Your task to perform on an android device: Open Chrome and go to the settings page Image 0: 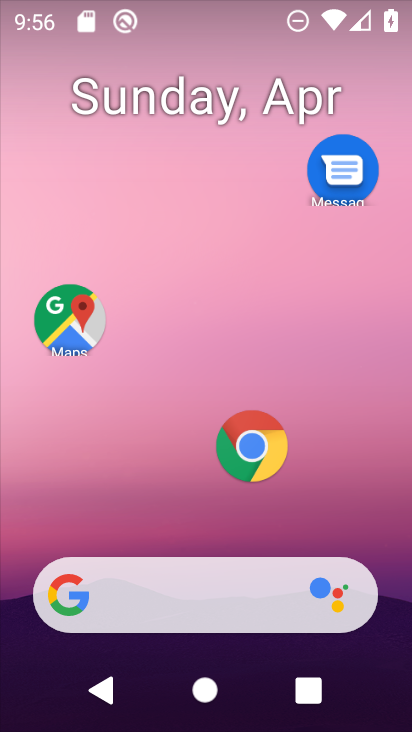
Step 0: drag from (234, 333) to (236, 279)
Your task to perform on an android device: Open Chrome and go to the settings page Image 1: 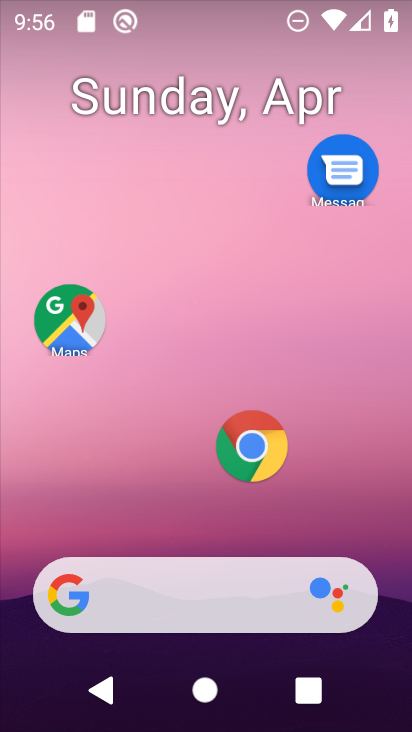
Step 1: drag from (185, 498) to (207, 128)
Your task to perform on an android device: Open Chrome and go to the settings page Image 2: 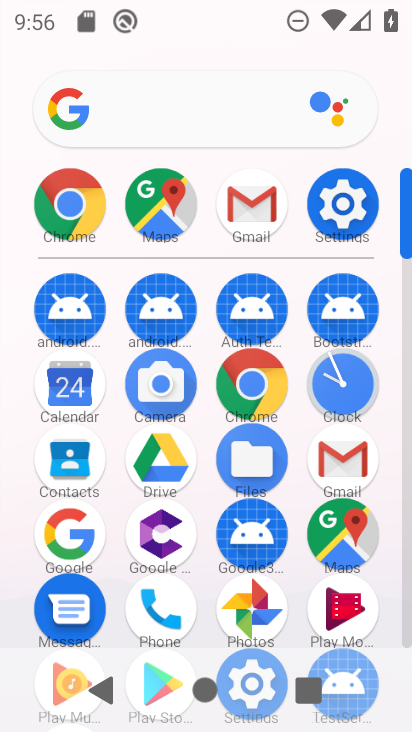
Step 2: drag from (206, 611) to (224, 96)
Your task to perform on an android device: Open Chrome and go to the settings page Image 3: 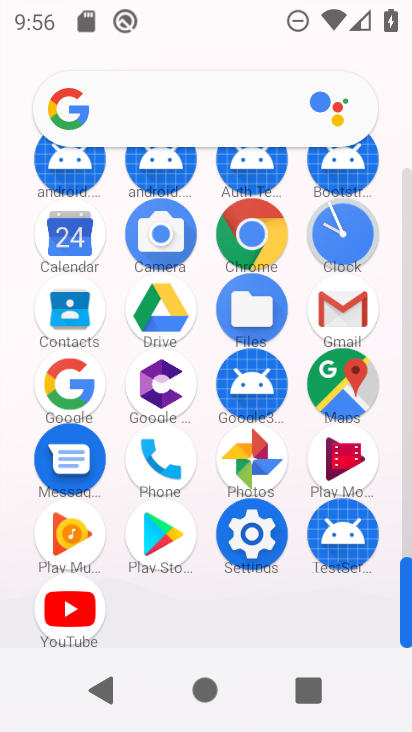
Step 3: click (247, 231)
Your task to perform on an android device: Open Chrome and go to the settings page Image 4: 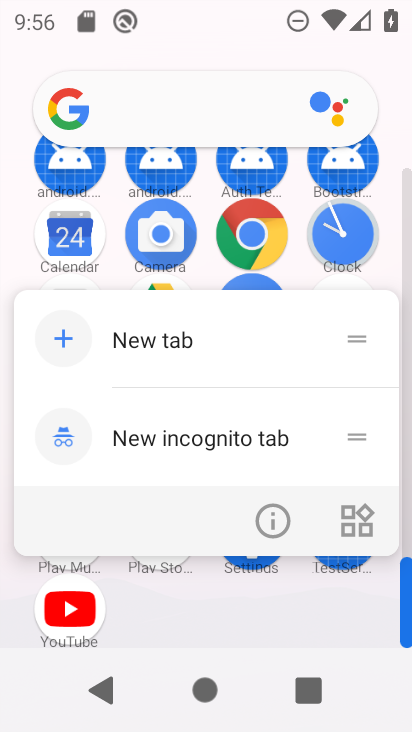
Step 4: click (270, 512)
Your task to perform on an android device: Open Chrome and go to the settings page Image 5: 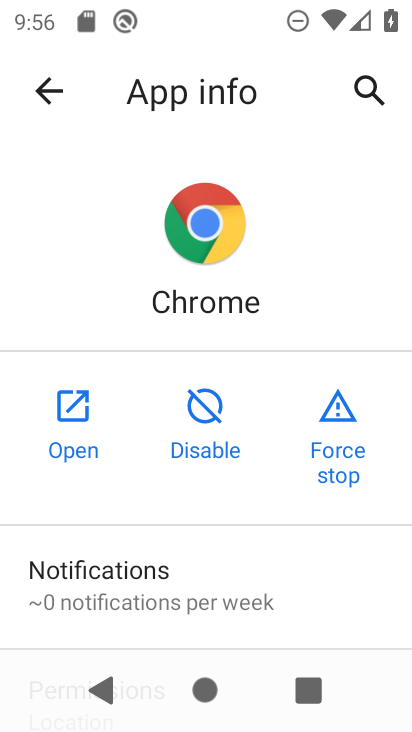
Step 5: click (72, 417)
Your task to perform on an android device: Open Chrome and go to the settings page Image 6: 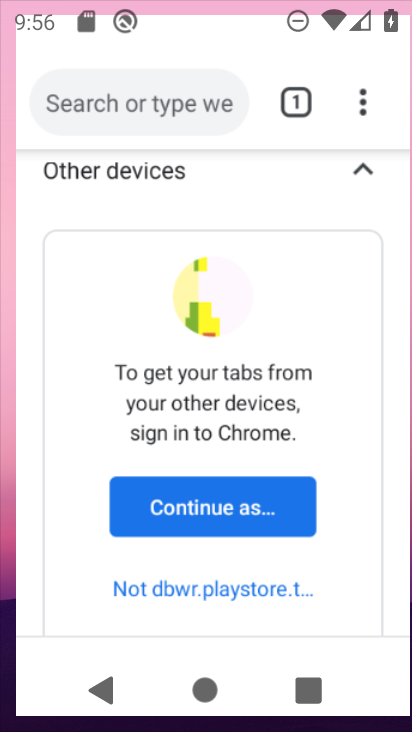
Step 6: click (79, 400)
Your task to perform on an android device: Open Chrome and go to the settings page Image 7: 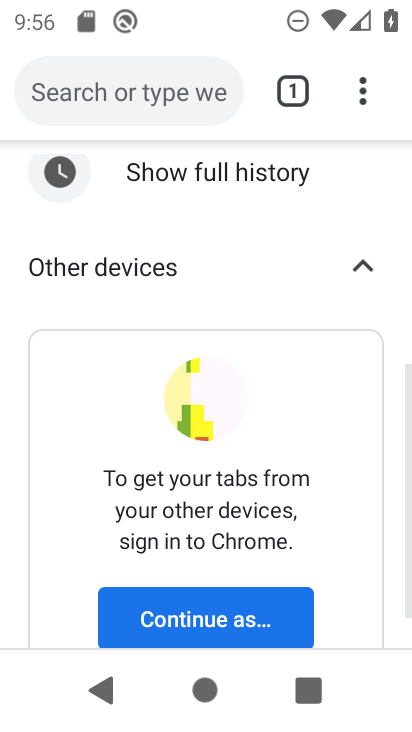
Step 7: task complete